Your task to perform on an android device: turn on priority inbox in the gmail app Image 0: 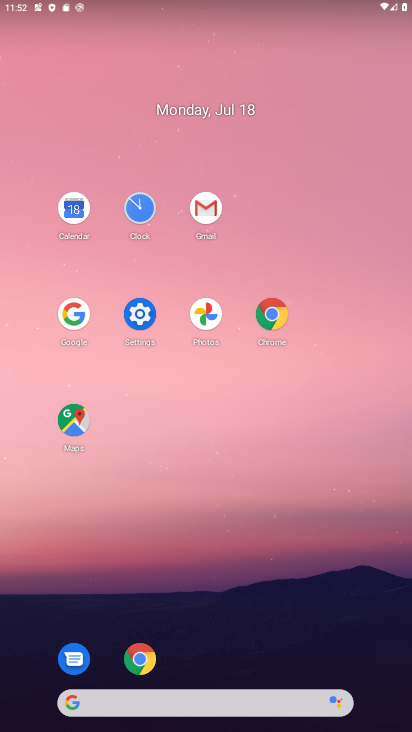
Step 0: click (210, 207)
Your task to perform on an android device: turn on priority inbox in the gmail app Image 1: 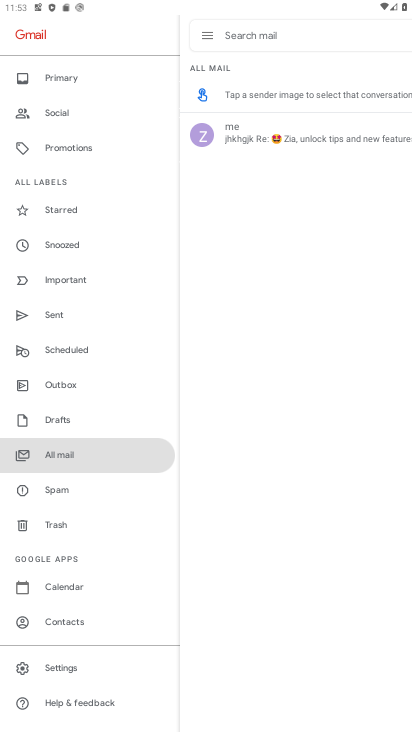
Step 1: click (85, 663)
Your task to perform on an android device: turn on priority inbox in the gmail app Image 2: 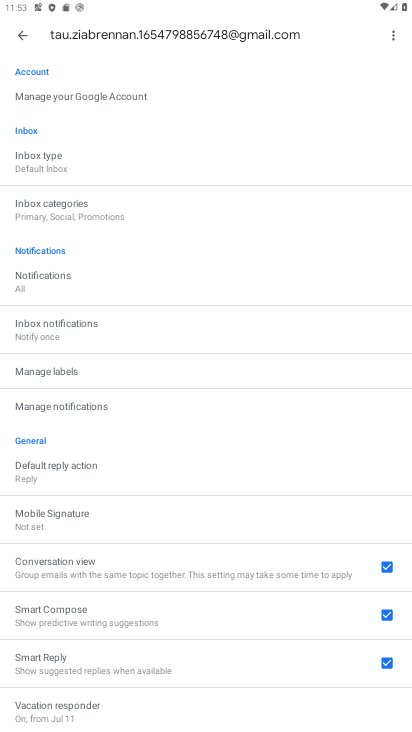
Step 2: click (113, 162)
Your task to perform on an android device: turn on priority inbox in the gmail app Image 3: 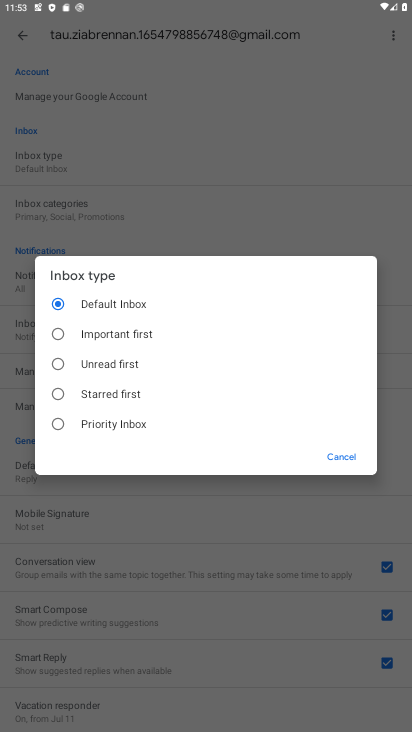
Step 3: click (123, 424)
Your task to perform on an android device: turn on priority inbox in the gmail app Image 4: 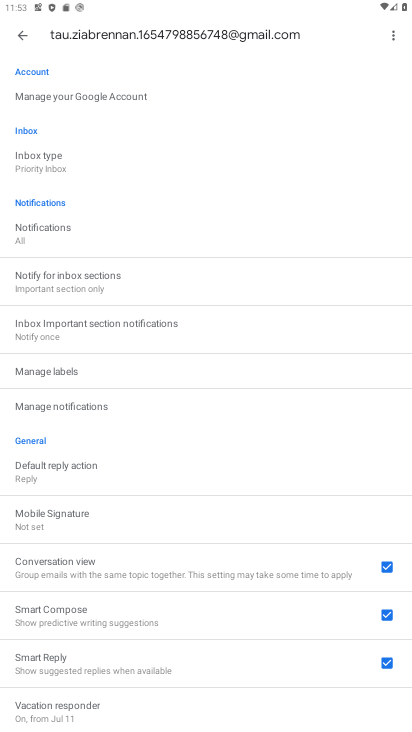
Step 4: task complete